Your task to perform on an android device: turn off notifications in google photos Image 0: 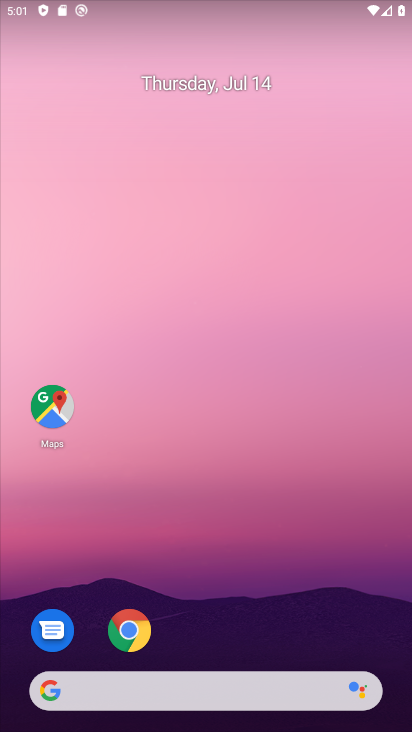
Step 0: press home button
Your task to perform on an android device: turn off notifications in google photos Image 1: 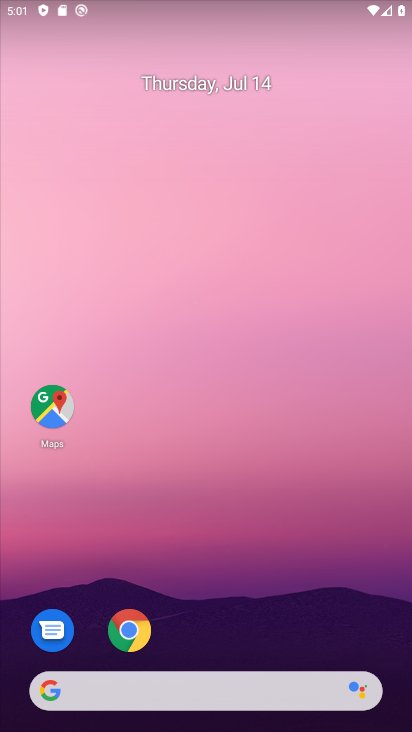
Step 1: drag from (254, 642) to (252, 137)
Your task to perform on an android device: turn off notifications in google photos Image 2: 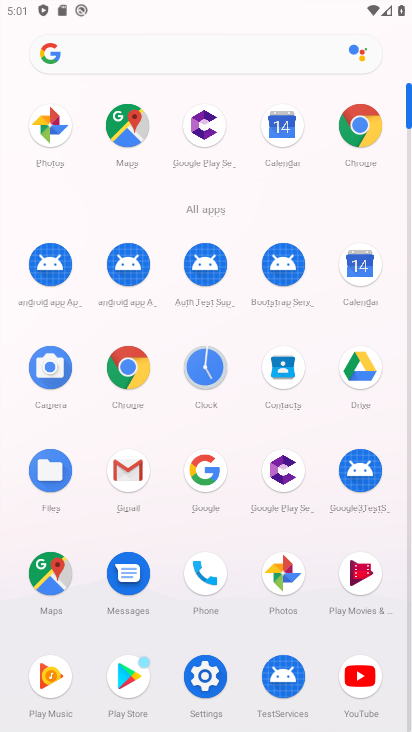
Step 2: click (278, 573)
Your task to perform on an android device: turn off notifications in google photos Image 3: 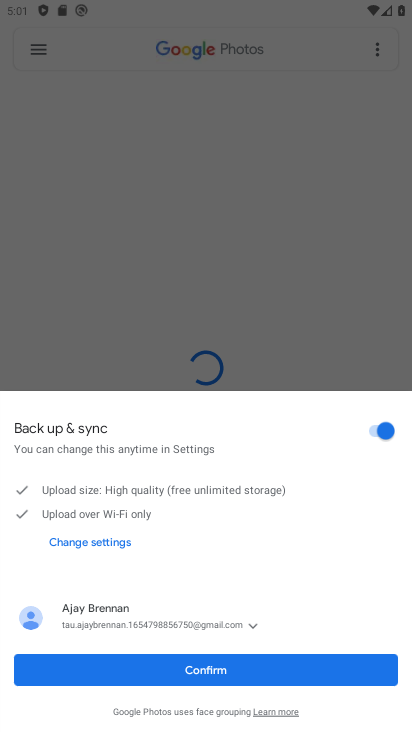
Step 3: click (202, 673)
Your task to perform on an android device: turn off notifications in google photos Image 4: 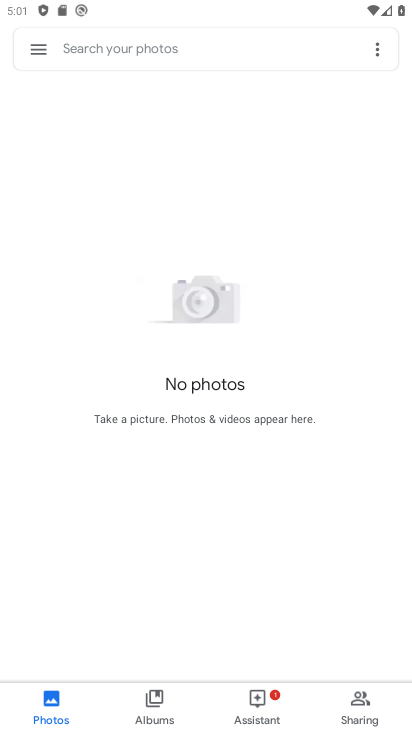
Step 4: click (30, 46)
Your task to perform on an android device: turn off notifications in google photos Image 5: 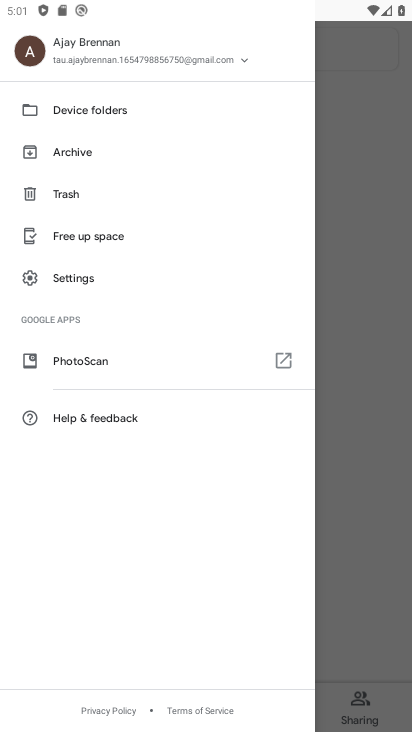
Step 5: click (60, 277)
Your task to perform on an android device: turn off notifications in google photos Image 6: 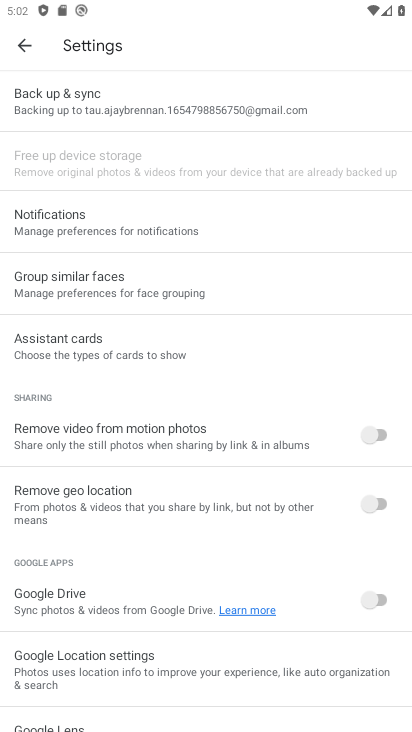
Step 6: click (55, 215)
Your task to perform on an android device: turn off notifications in google photos Image 7: 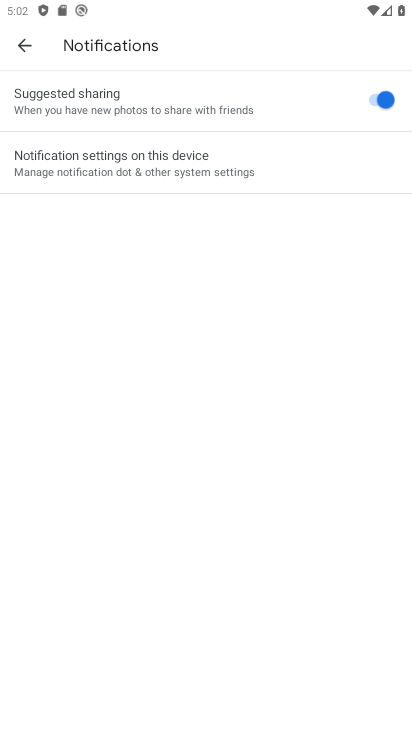
Step 7: click (392, 105)
Your task to perform on an android device: turn off notifications in google photos Image 8: 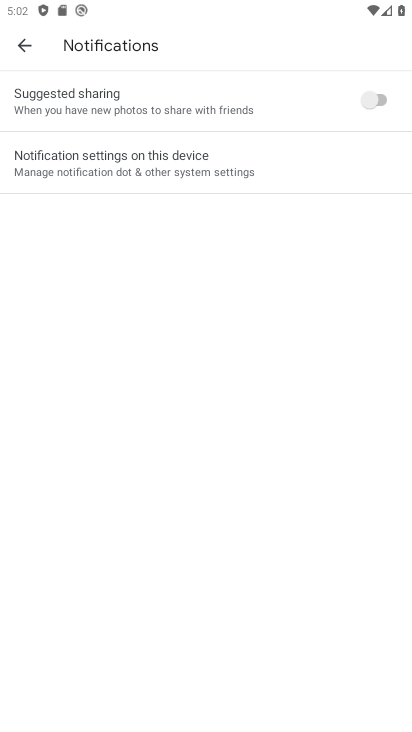
Step 8: task complete